Your task to perform on an android device: Find coffee shops on Maps Image 0: 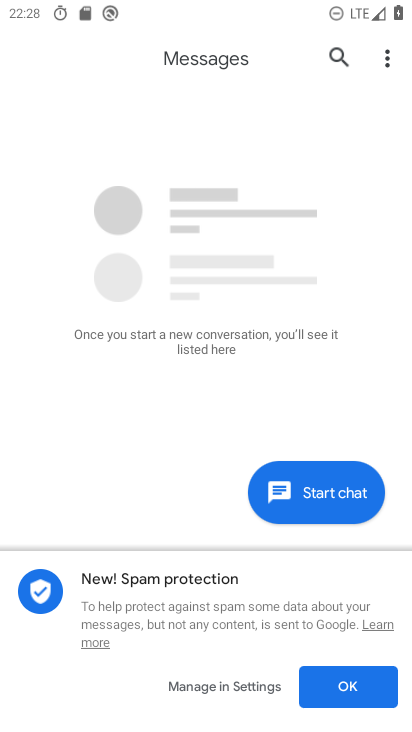
Step 0: press home button
Your task to perform on an android device: Find coffee shops on Maps Image 1: 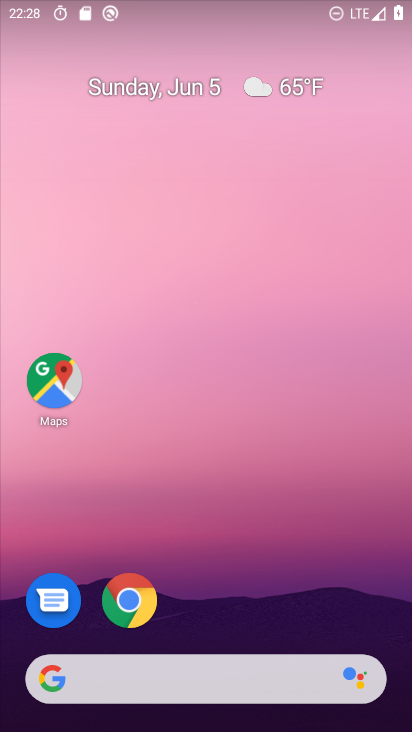
Step 1: drag from (289, 579) to (277, 170)
Your task to perform on an android device: Find coffee shops on Maps Image 2: 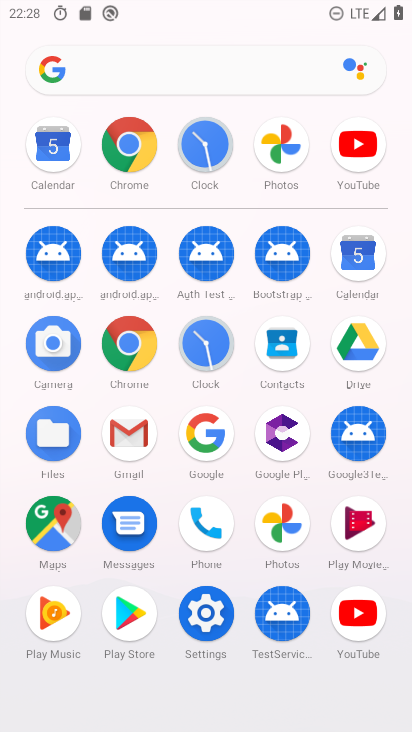
Step 2: click (63, 529)
Your task to perform on an android device: Find coffee shops on Maps Image 3: 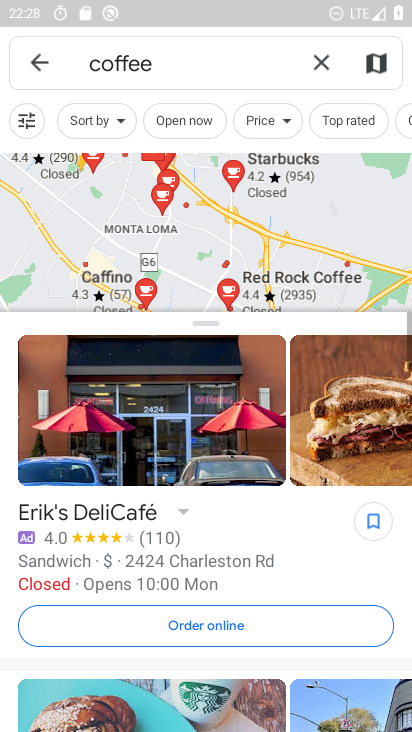
Step 3: click (232, 52)
Your task to perform on an android device: Find coffee shops on Maps Image 4: 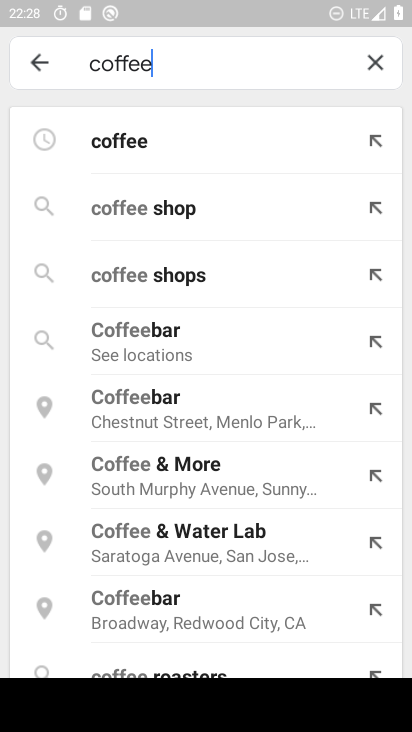
Step 4: click (171, 283)
Your task to perform on an android device: Find coffee shops on Maps Image 5: 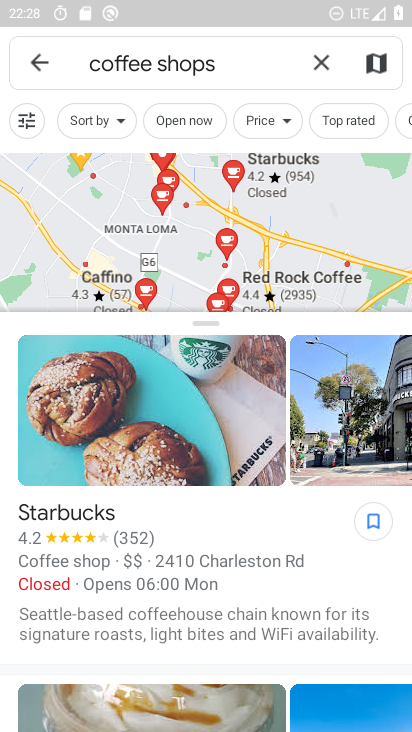
Step 5: task complete